Your task to perform on an android device: stop showing notifications on the lock screen Image 0: 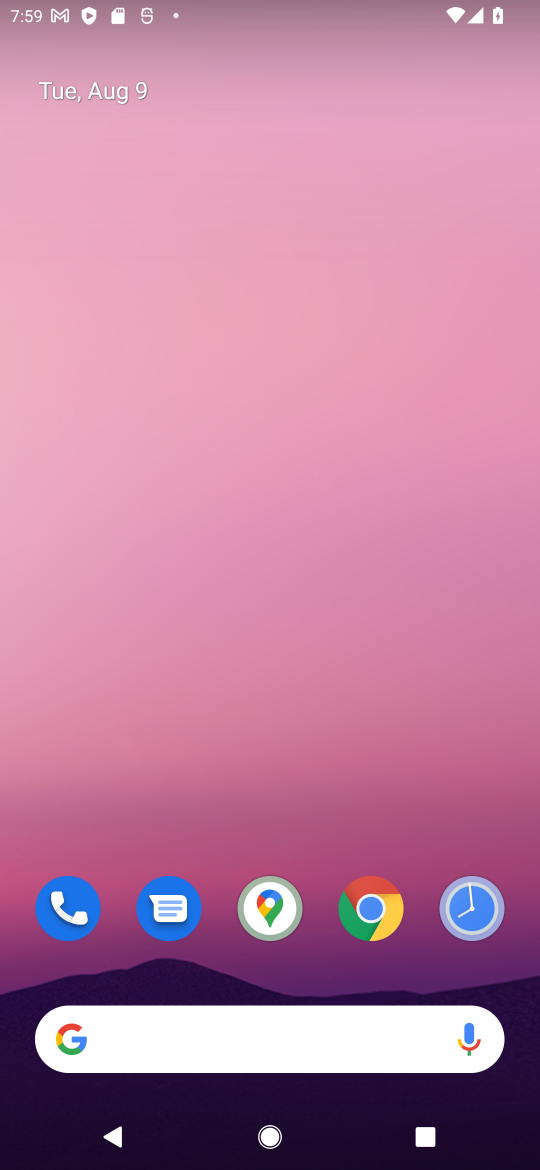
Step 0: drag from (320, 823) to (323, 165)
Your task to perform on an android device: stop showing notifications on the lock screen Image 1: 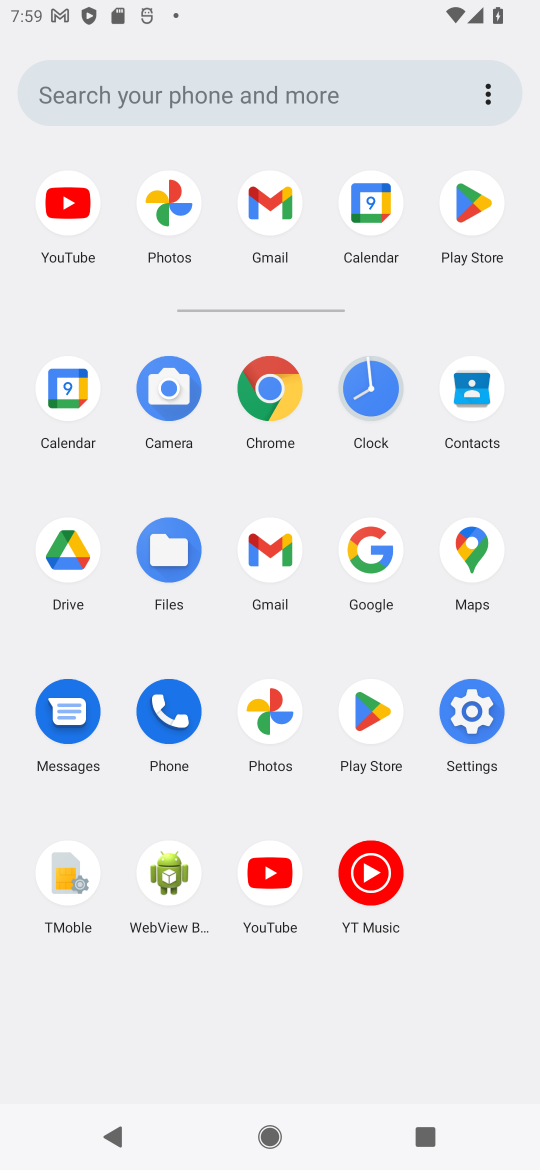
Step 1: click (487, 709)
Your task to perform on an android device: stop showing notifications on the lock screen Image 2: 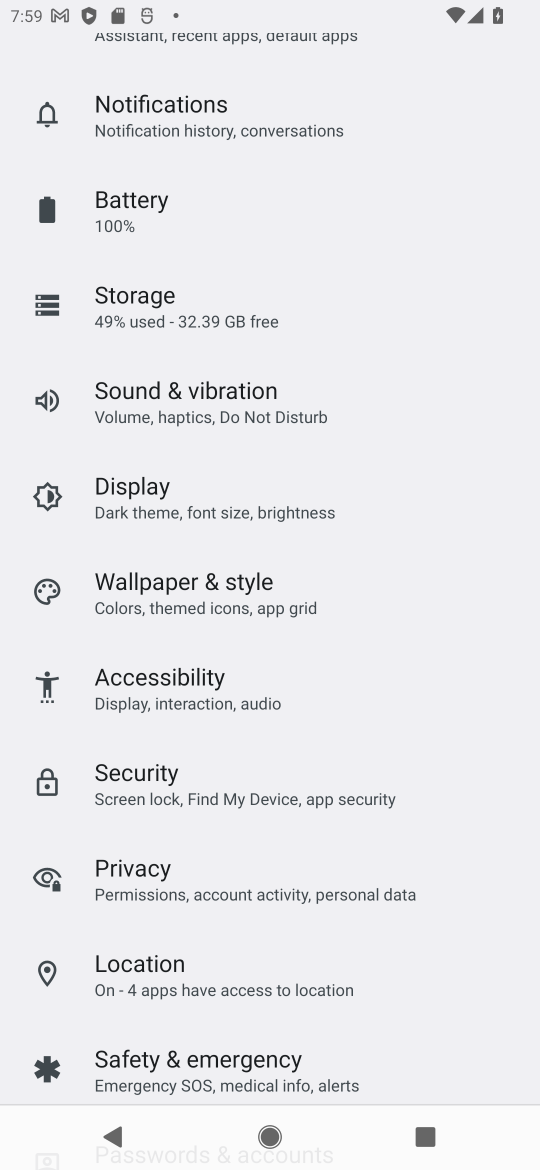
Step 2: drag from (192, 231) to (185, 866)
Your task to perform on an android device: stop showing notifications on the lock screen Image 3: 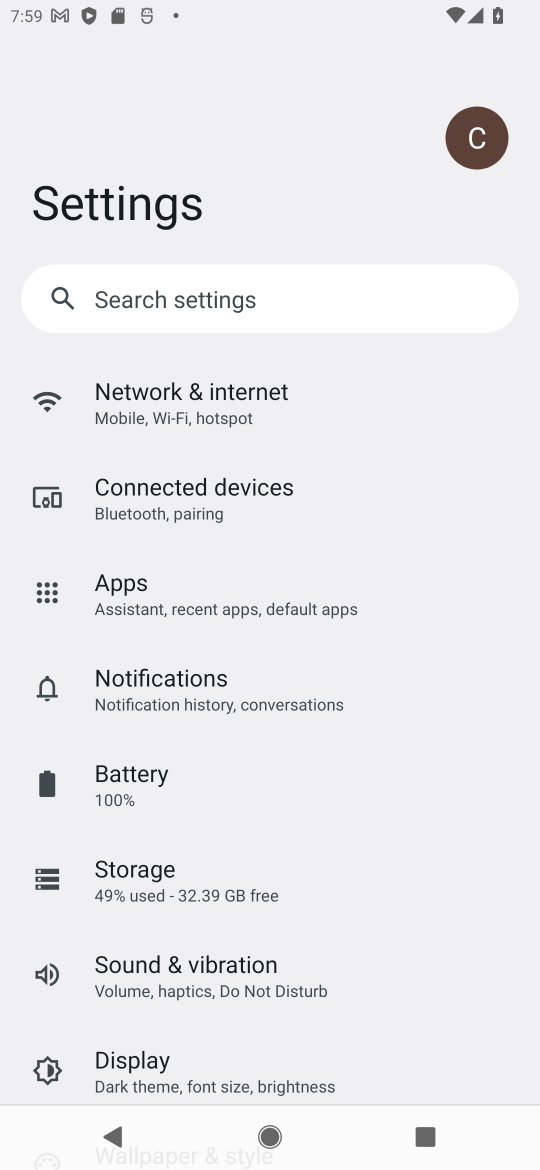
Step 3: click (190, 689)
Your task to perform on an android device: stop showing notifications on the lock screen Image 4: 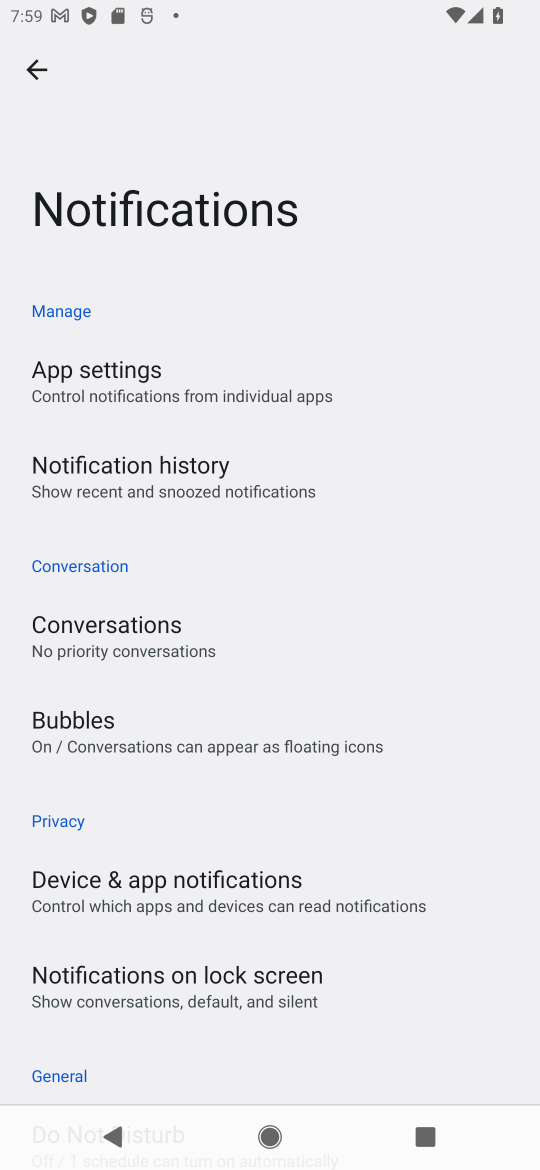
Step 4: drag from (189, 997) to (164, 752)
Your task to perform on an android device: stop showing notifications on the lock screen Image 5: 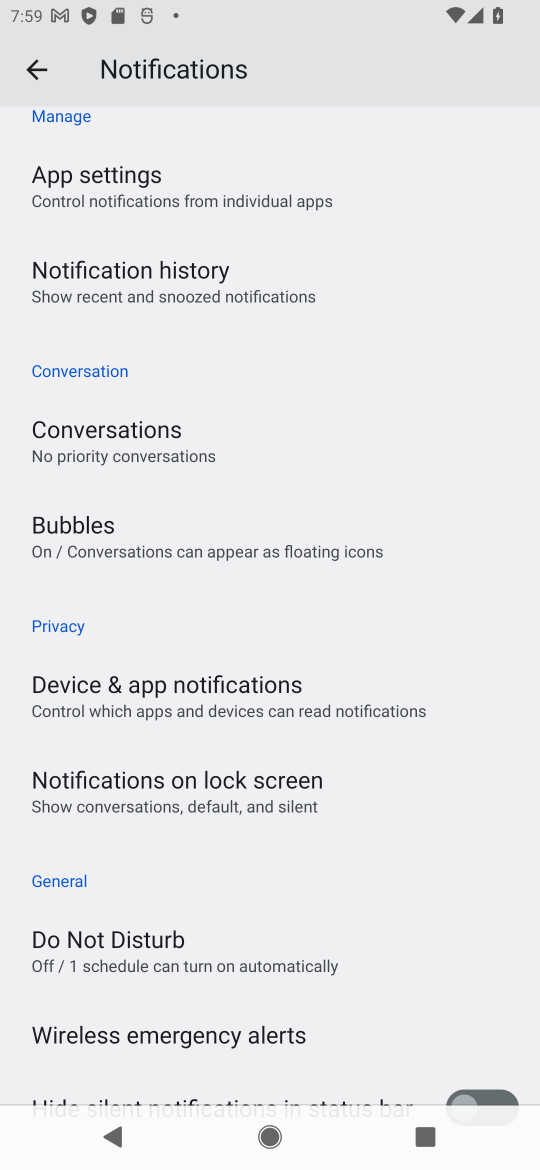
Step 5: click (170, 818)
Your task to perform on an android device: stop showing notifications on the lock screen Image 6: 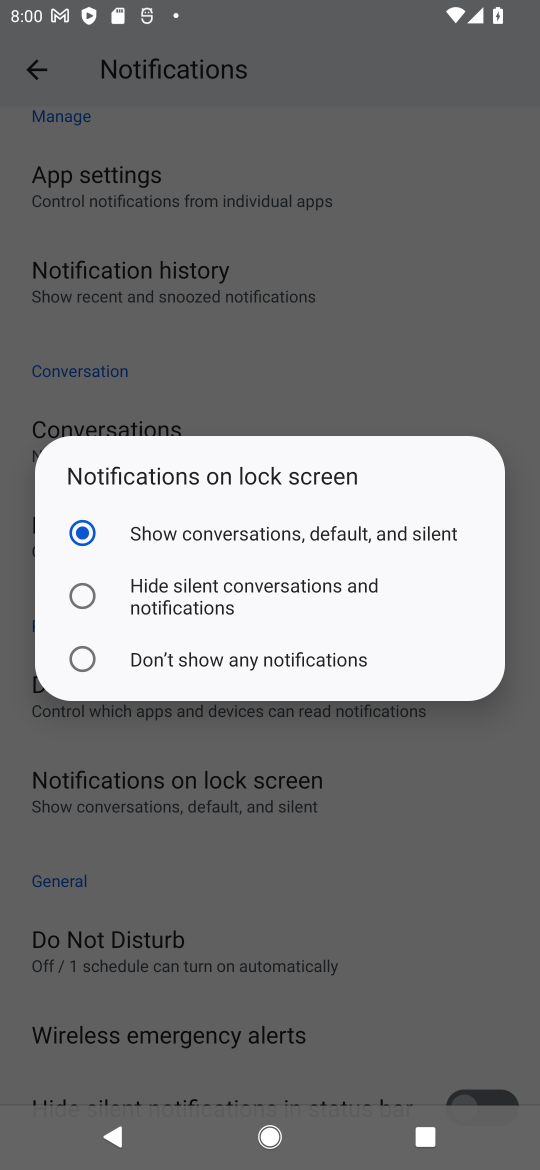
Step 6: click (87, 659)
Your task to perform on an android device: stop showing notifications on the lock screen Image 7: 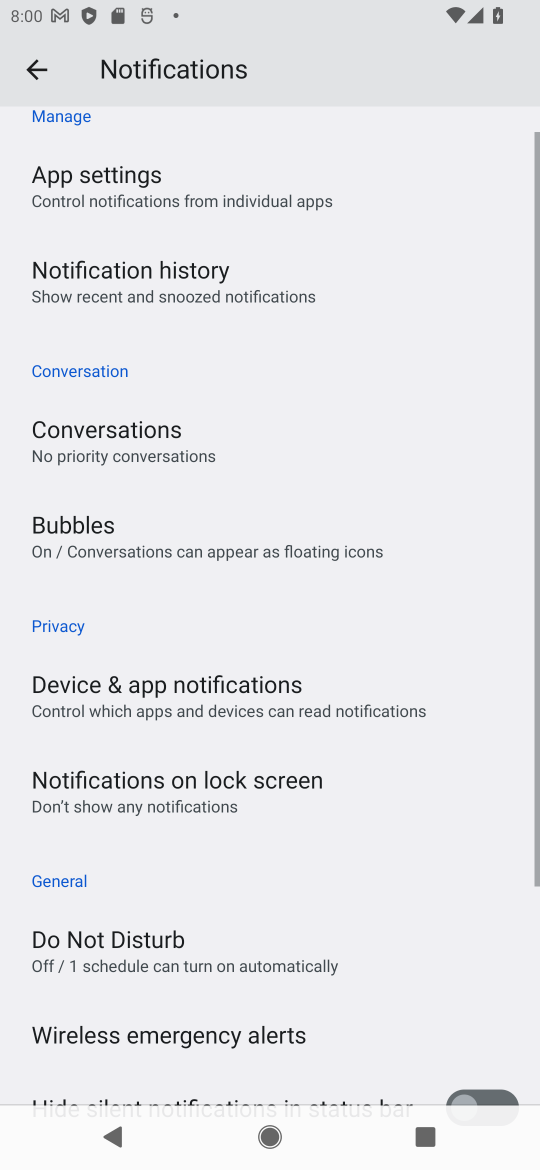
Step 7: task complete